Your task to perform on an android device: Search for jbl charge 4 on walmart.com, select the first entry, add it to the cart, then select checkout. Image 0: 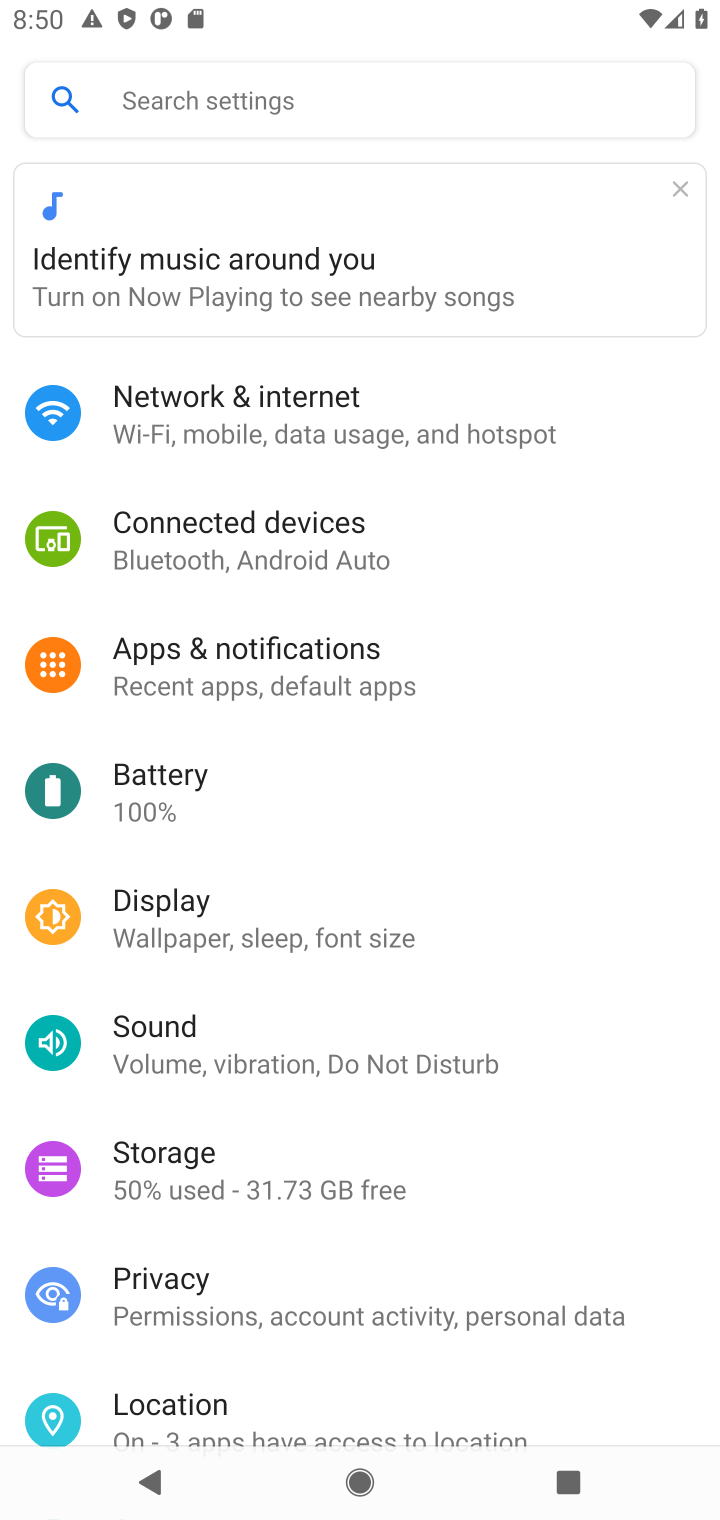
Step 0: press home button
Your task to perform on an android device: Search for jbl charge 4 on walmart.com, select the first entry, add it to the cart, then select checkout. Image 1: 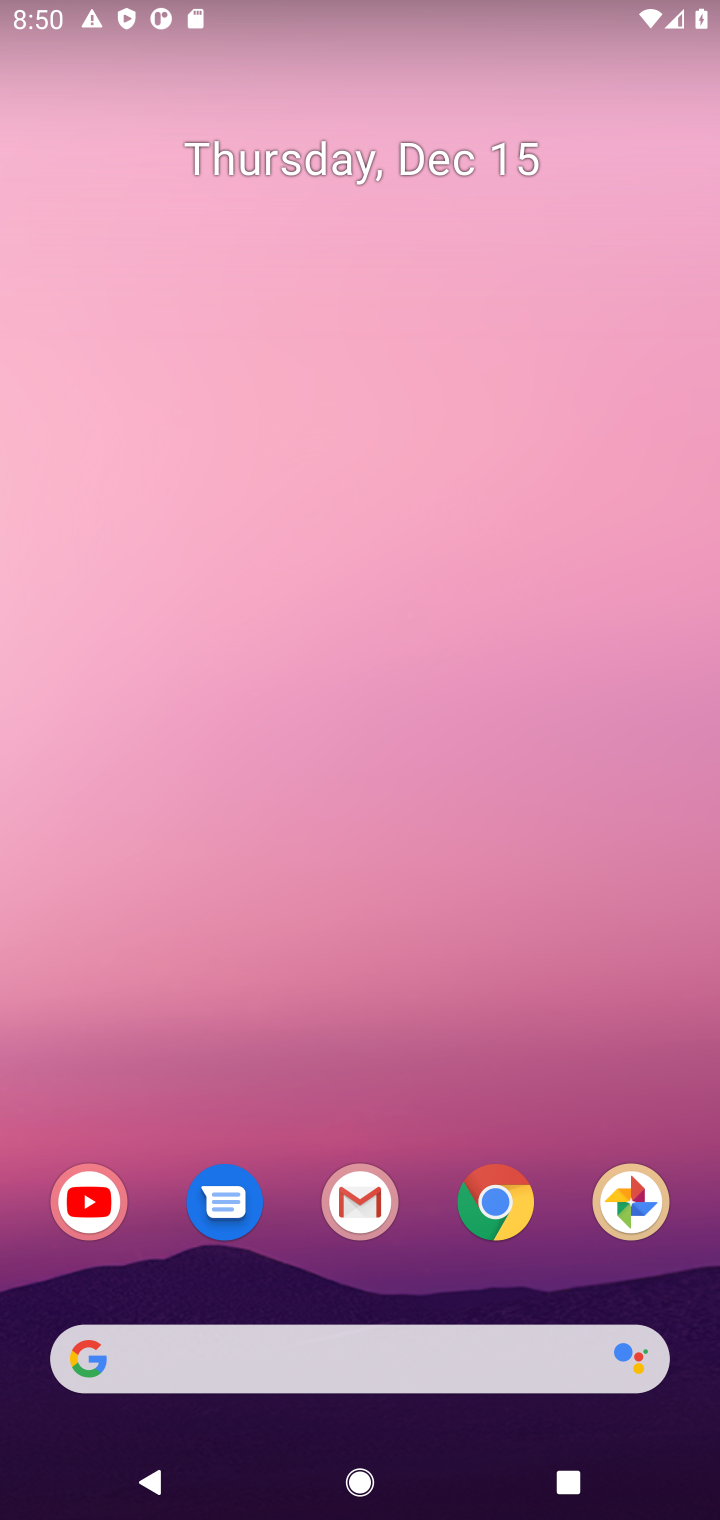
Step 1: click (497, 1206)
Your task to perform on an android device: Search for jbl charge 4 on walmart.com, select the first entry, add it to the cart, then select checkout. Image 2: 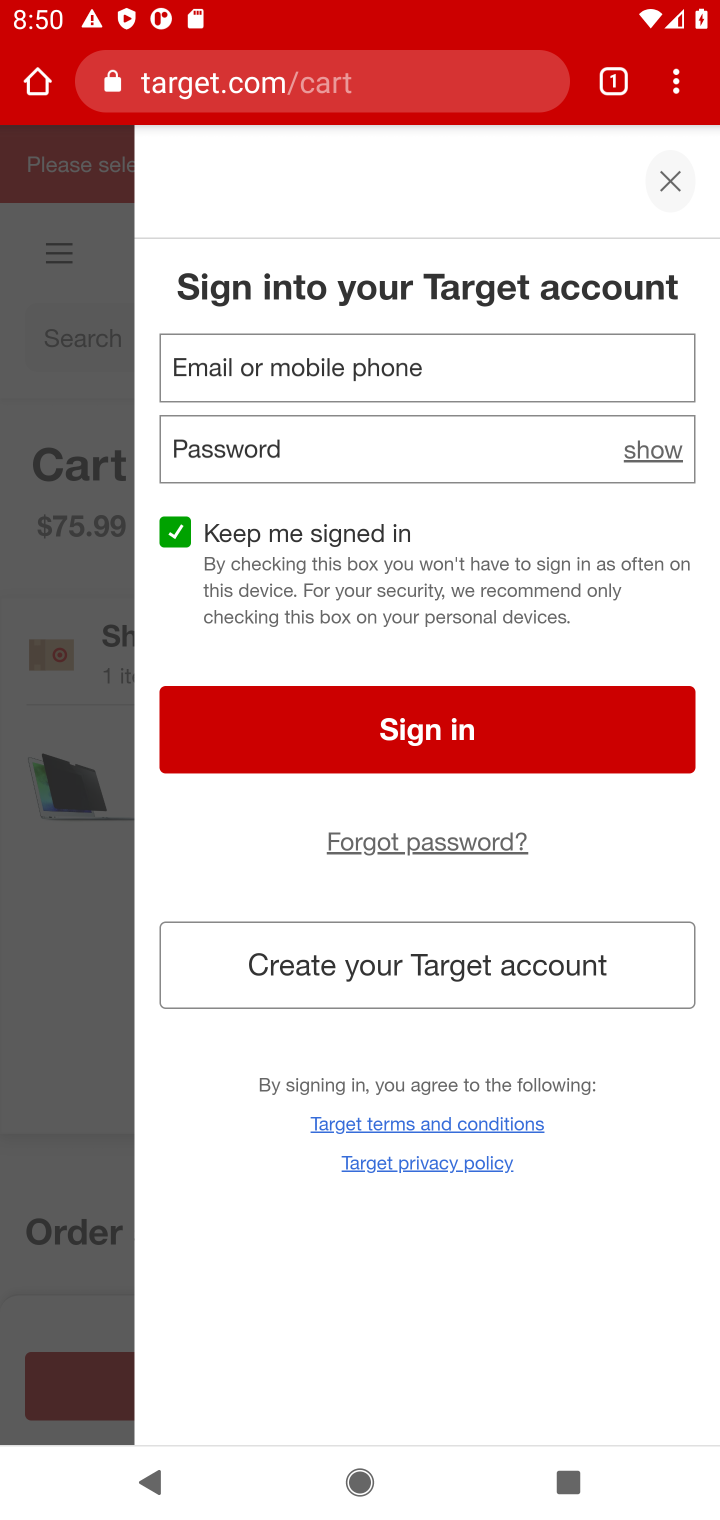
Step 2: click (238, 86)
Your task to perform on an android device: Search for jbl charge 4 on walmart.com, select the first entry, add it to the cart, then select checkout. Image 3: 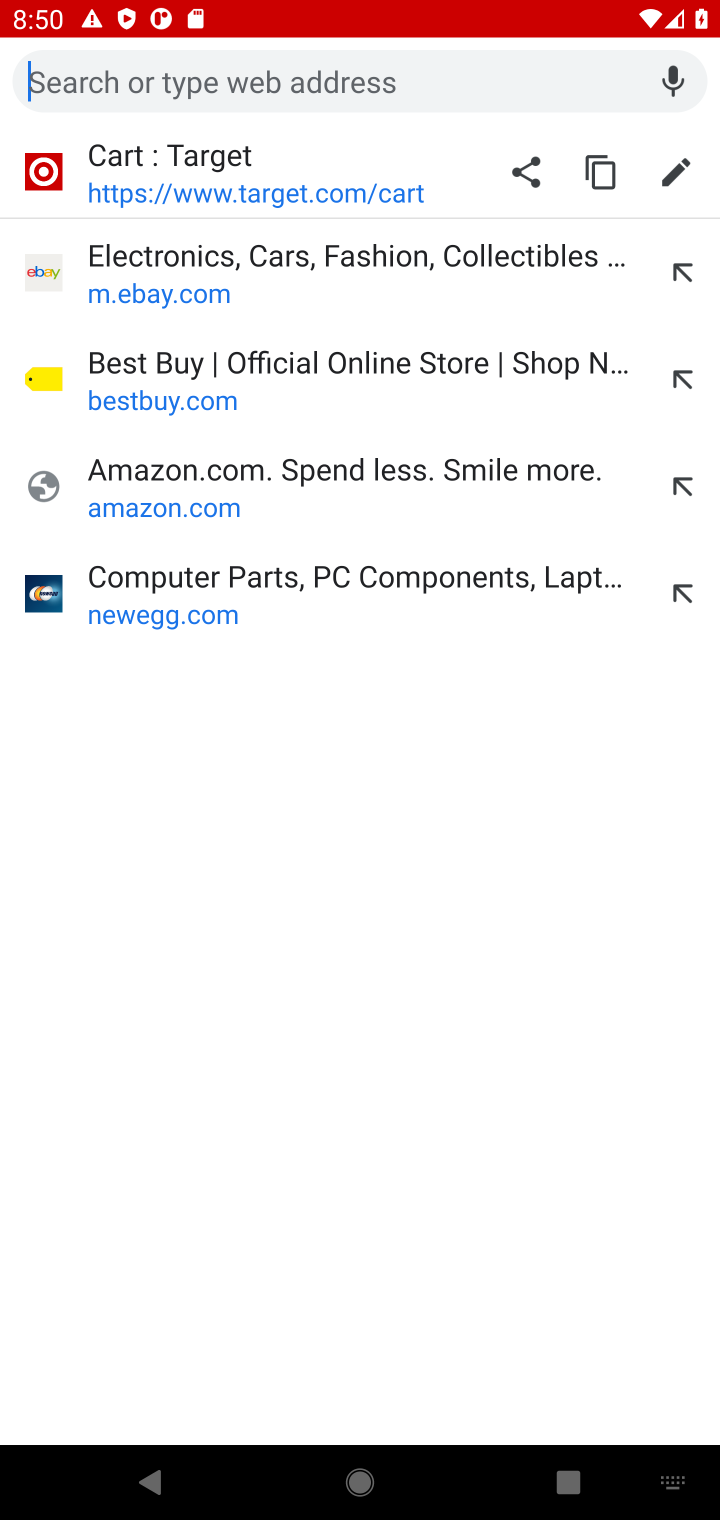
Step 3: type "walmart.com"
Your task to perform on an android device: Search for jbl charge 4 on walmart.com, select the first entry, add it to the cart, then select checkout. Image 4: 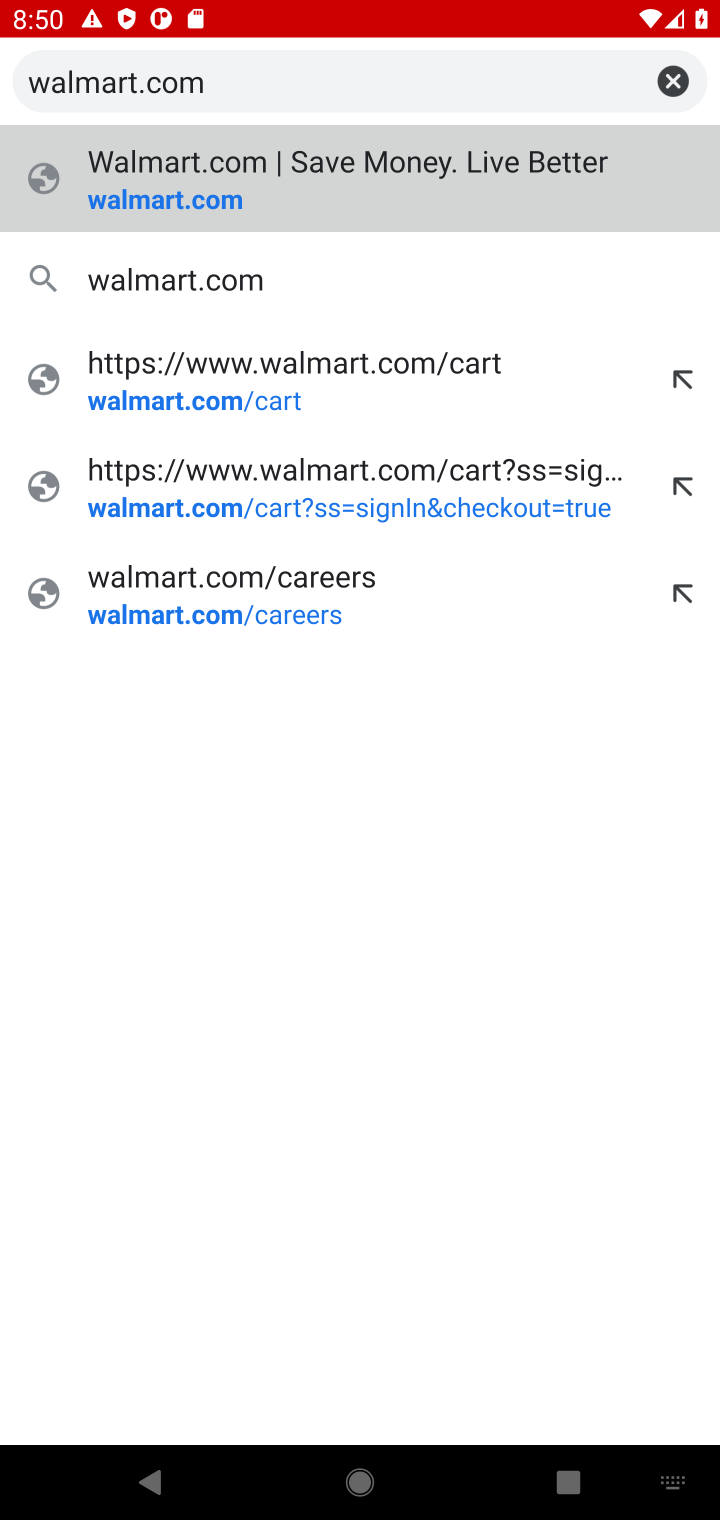
Step 4: click (146, 189)
Your task to perform on an android device: Search for jbl charge 4 on walmart.com, select the first entry, add it to the cart, then select checkout. Image 5: 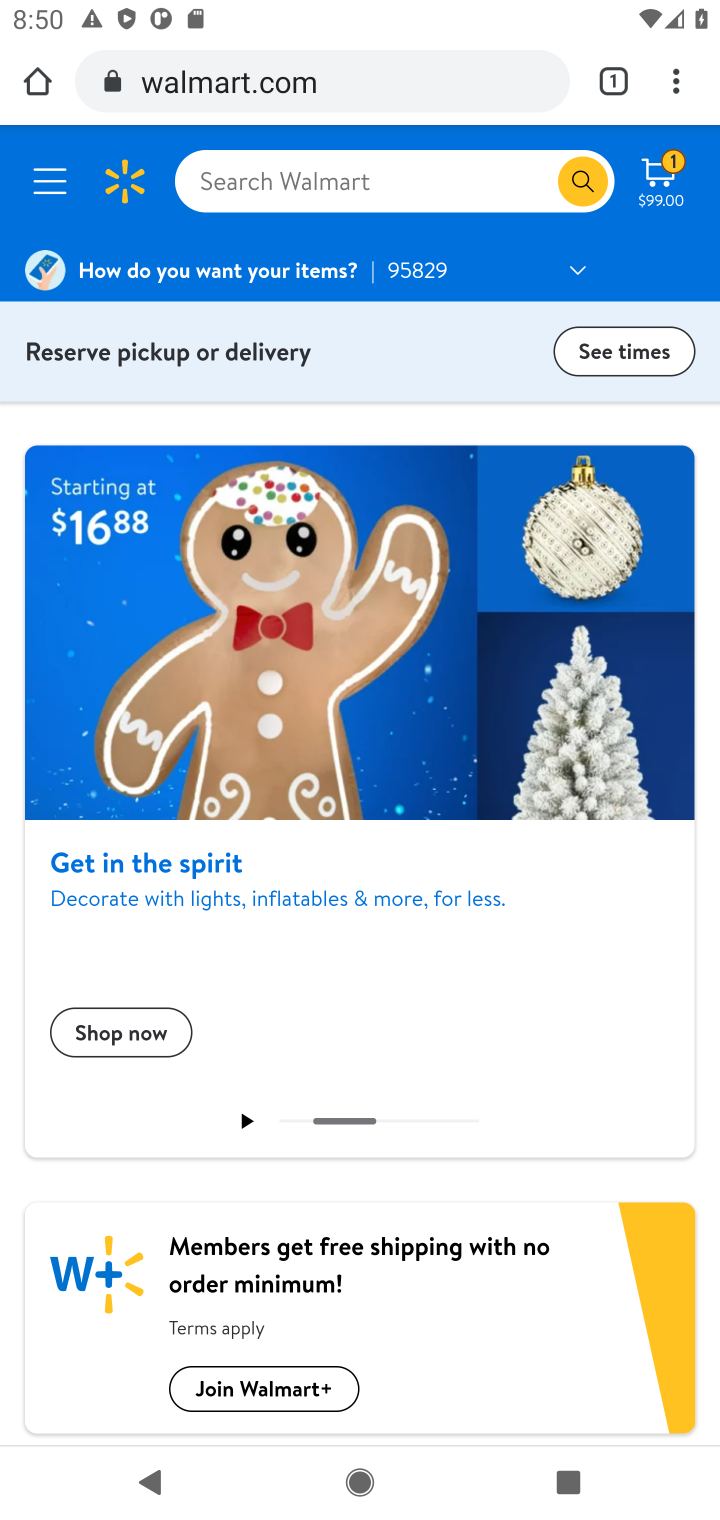
Step 5: click (261, 197)
Your task to perform on an android device: Search for jbl charge 4 on walmart.com, select the first entry, add it to the cart, then select checkout. Image 6: 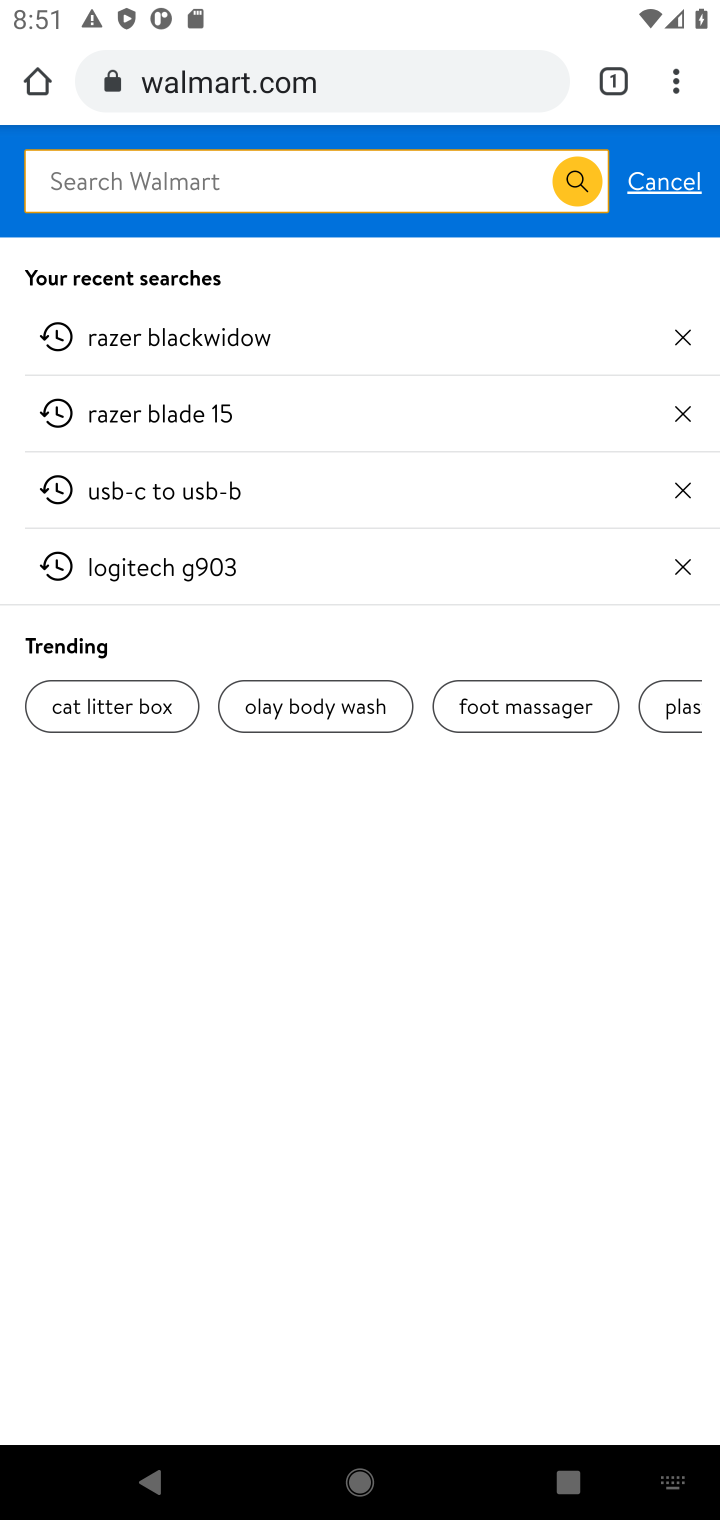
Step 6: type "jbl charge 4"
Your task to perform on an android device: Search for jbl charge 4 on walmart.com, select the first entry, add it to the cart, then select checkout. Image 7: 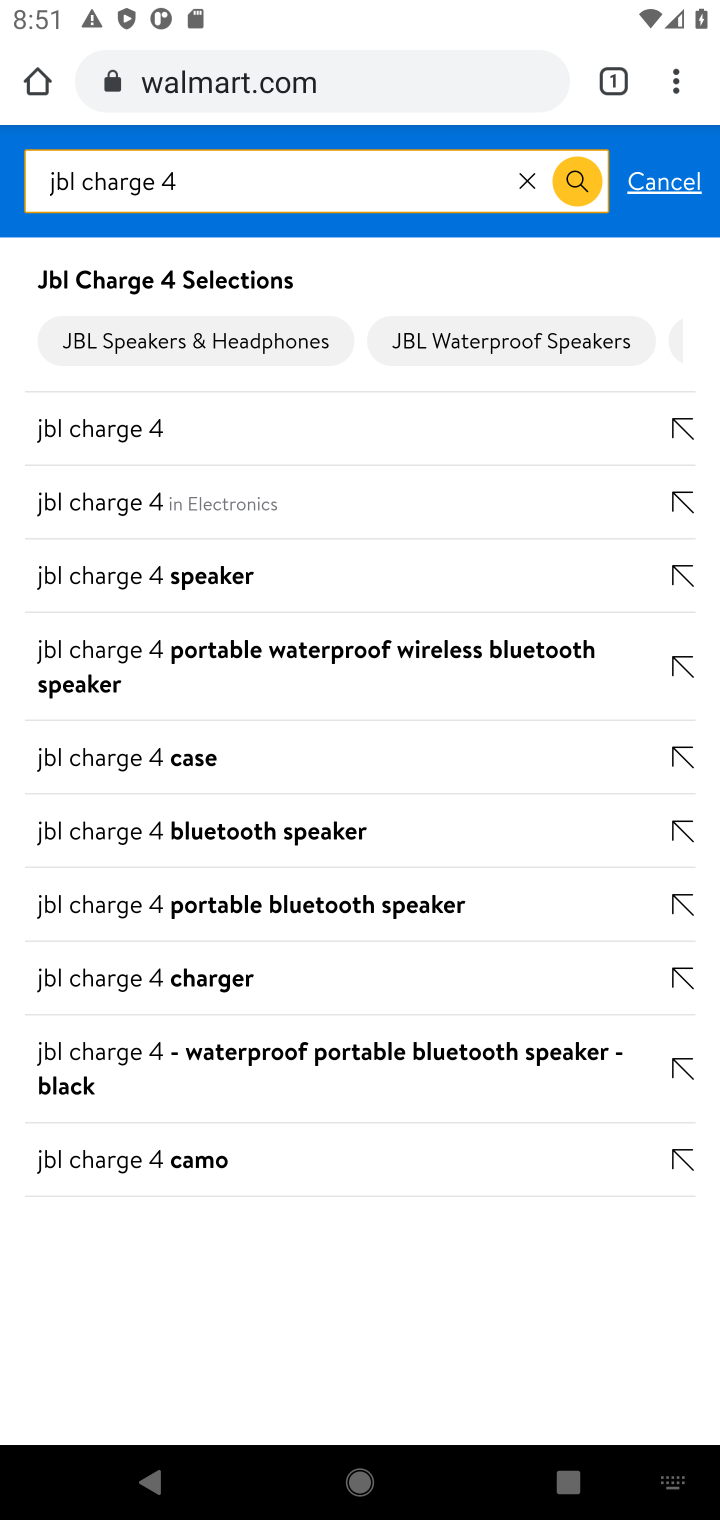
Step 7: click (92, 436)
Your task to perform on an android device: Search for jbl charge 4 on walmart.com, select the first entry, add it to the cart, then select checkout. Image 8: 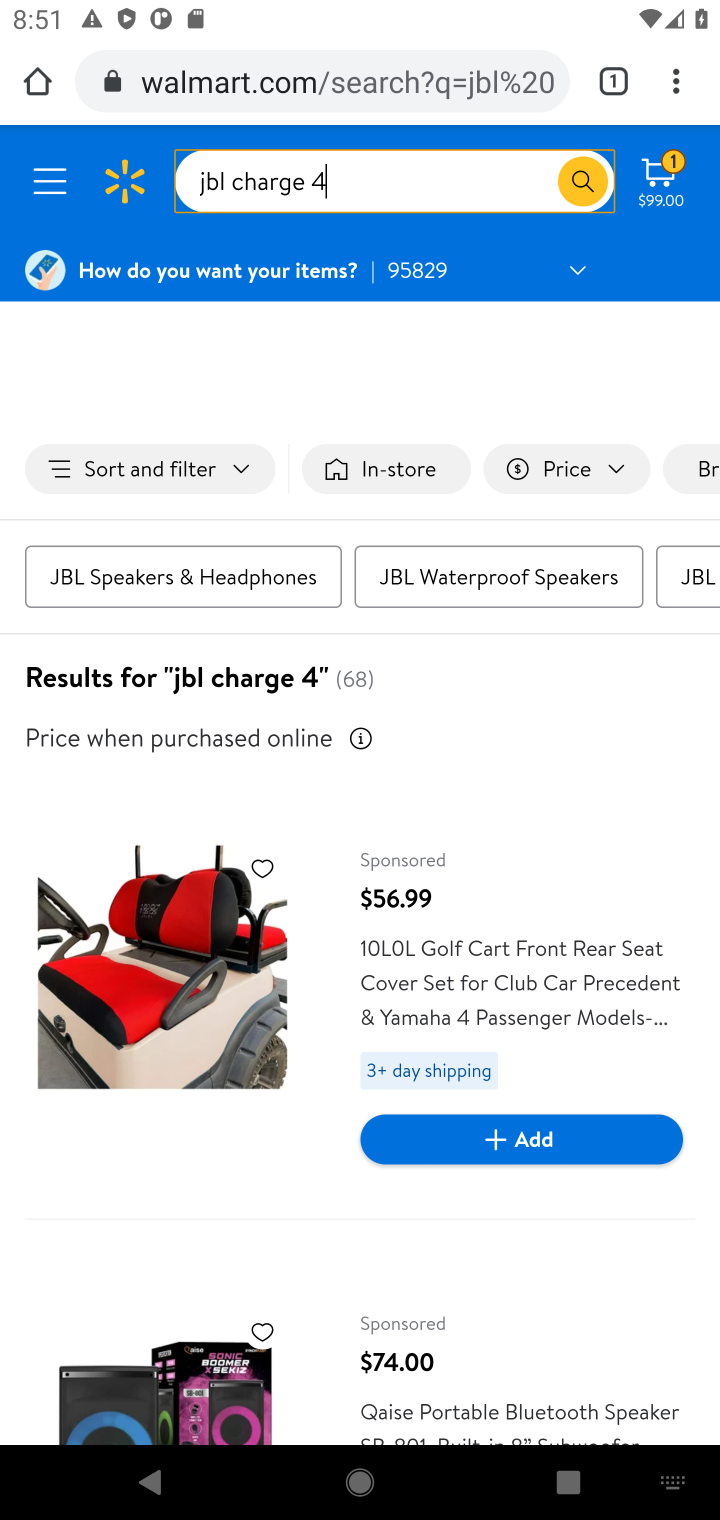
Step 8: click (515, 971)
Your task to perform on an android device: Search for jbl charge 4 on walmart.com, select the first entry, add it to the cart, then select checkout. Image 9: 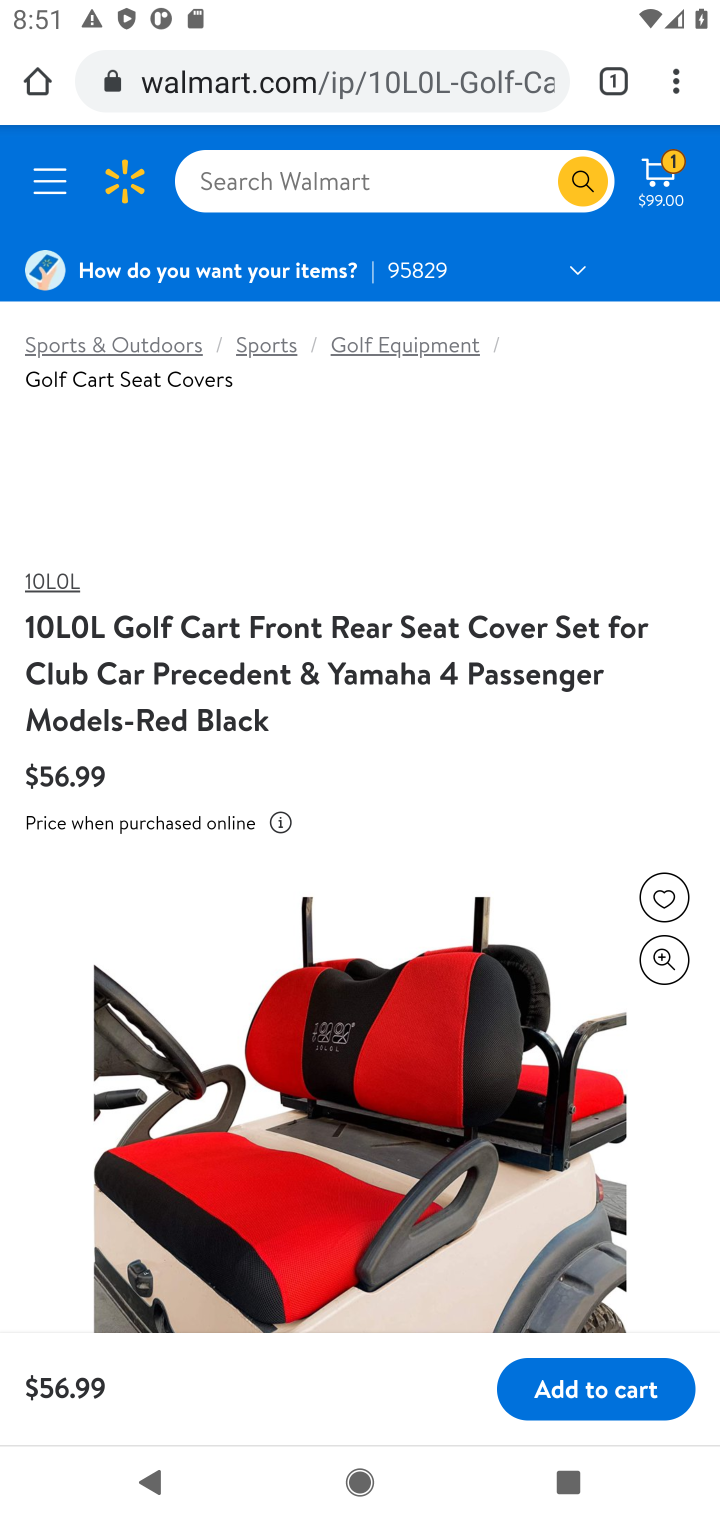
Step 9: task complete